Your task to perform on an android device: read, delete, or share a saved page in the chrome app Image 0: 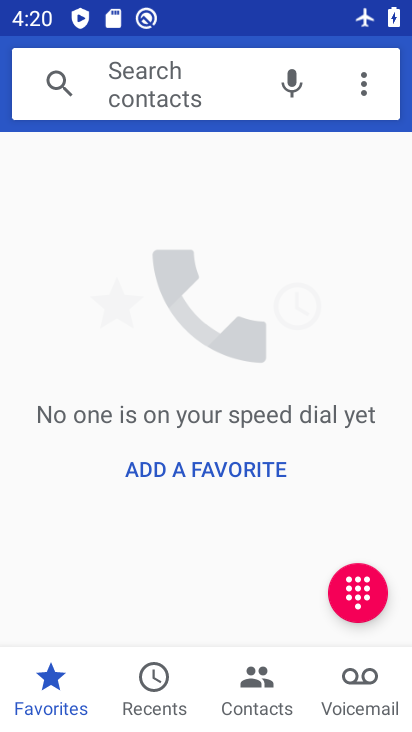
Step 0: press back button
Your task to perform on an android device: read, delete, or share a saved page in the chrome app Image 1: 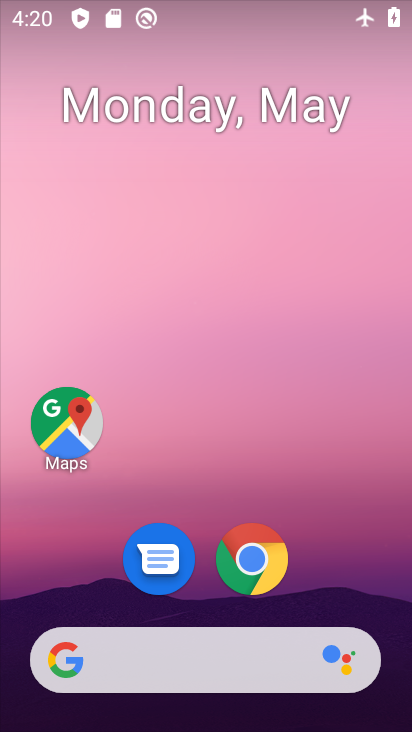
Step 1: drag from (328, 520) to (276, 19)
Your task to perform on an android device: read, delete, or share a saved page in the chrome app Image 2: 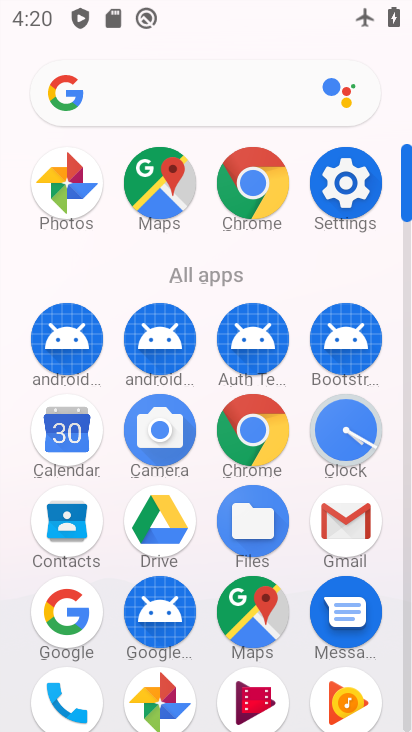
Step 2: drag from (16, 601) to (21, 249)
Your task to perform on an android device: read, delete, or share a saved page in the chrome app Image 3: 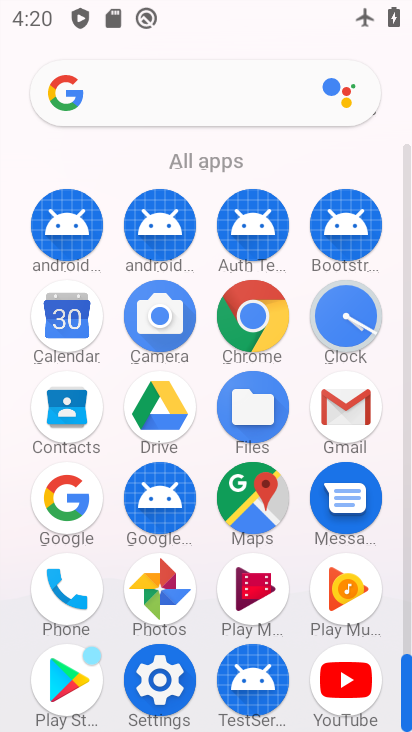
Step 3: click (251, 310)
Your task to perform on an android device: read, delete, or share a saved page in the chrome app Image 4: 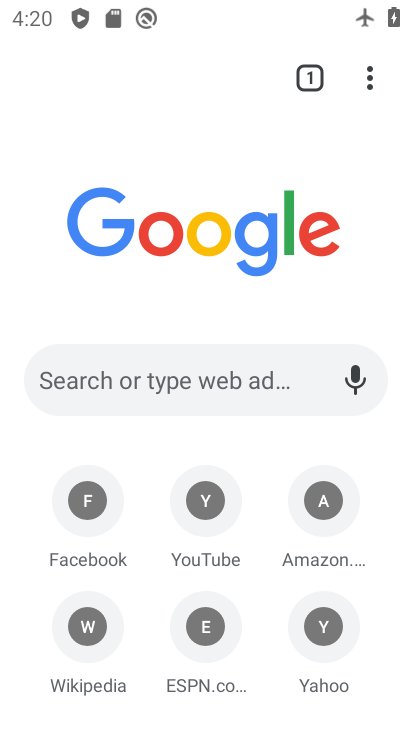
Step 4: drag from (367, 75) to (121, 573)
Your task to perform on an android device: read, delete, or share a saved page in the chrome app Image 5: 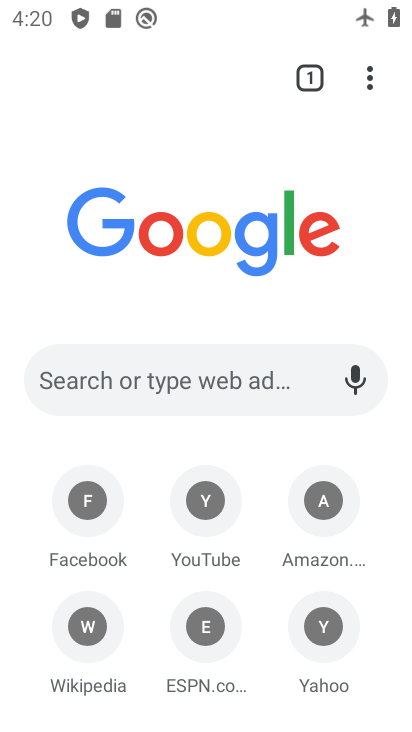
Step 5: click (115, 463)
Your task to perform on an android device: read, delete, or share a saved page in the chrome app Image 6: 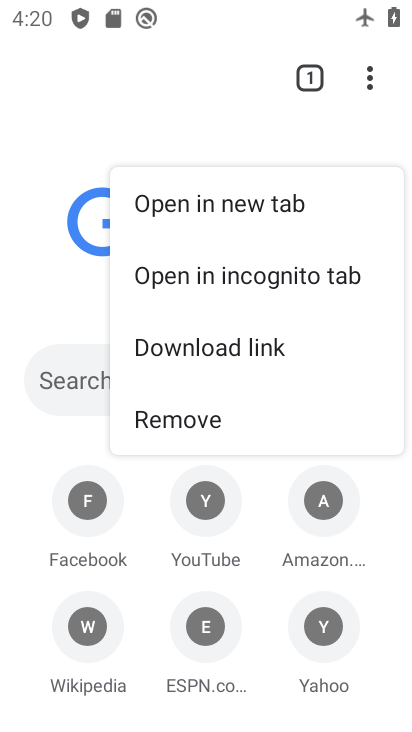
Step 6: click (220, 109)
Your task to perform on an android device: read, delete, or share a saved page in the chrome app Image 7: 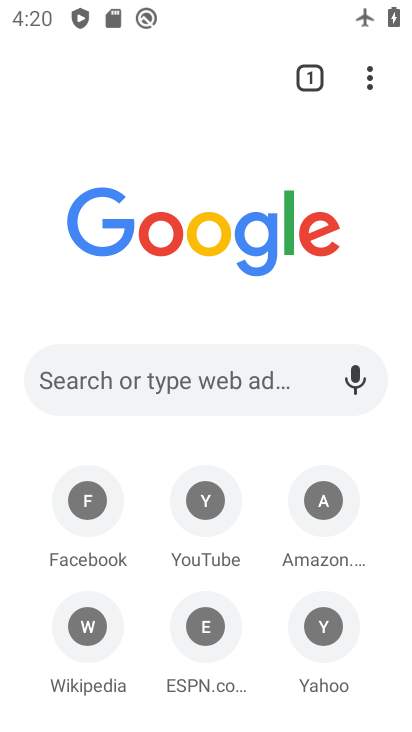
Step 7: task complete